Your task to perform on an android device: turn on airplane mode Image 0: 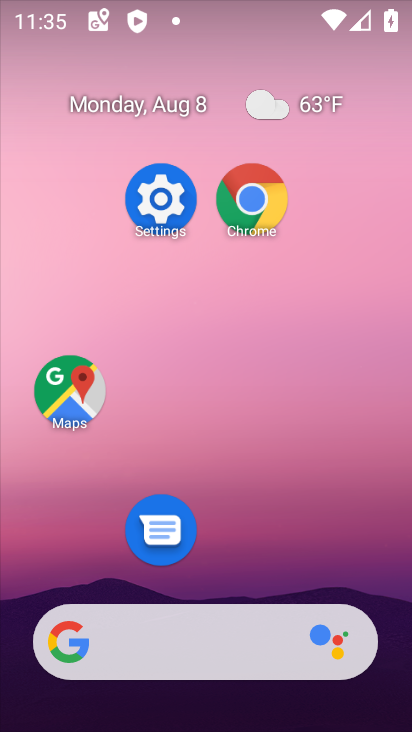
Step 0: drag from (228, 666) to (218, 246)
Your task to perform on an android device: turn on airplane mode Image 1: 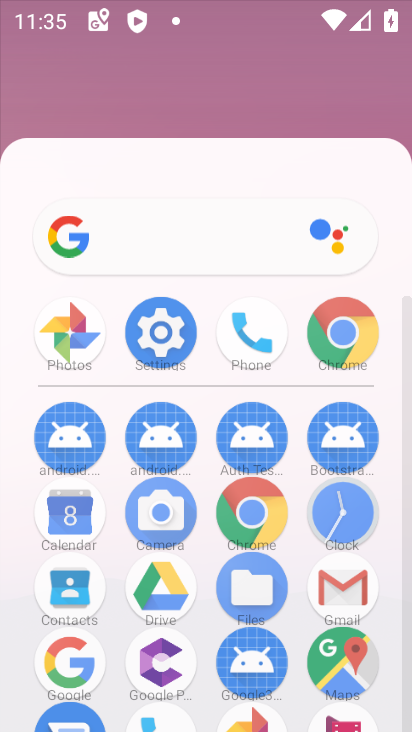
Step 1: drag from (211, 470) to (211, 169)
Your task to perform on an android device: turn on airplane mode Image 2: 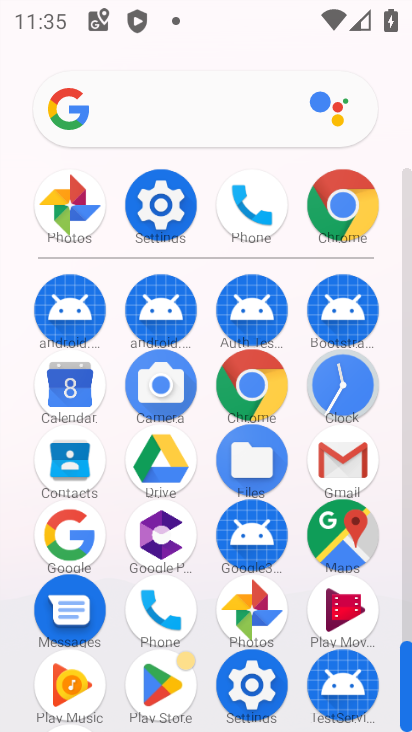
Step 2: click (159, 212)
Your task to perform on an android device: turn on airplane mode Image 3: 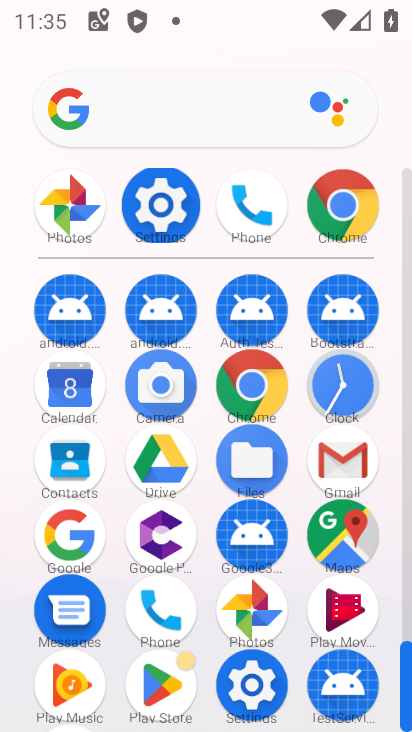
Step 3: click (157, 201)
Your task to perform on an android device: turn on airplane mode Image 4: 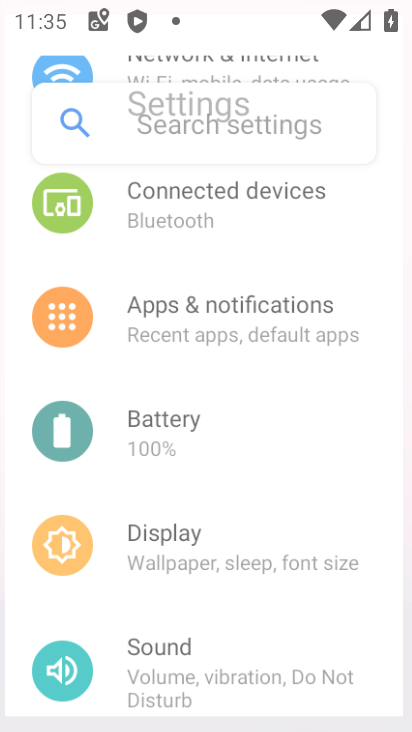
Step 4: click (159, 197)
Your task to perform on an android device: turn on airplane mode Image 5: 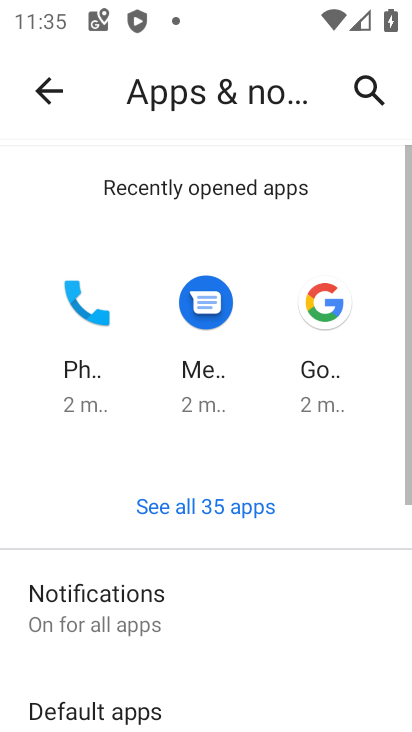
Step 5: click (36, 94)
Your task to perform on an android device: turn on airplane mode Image 6: 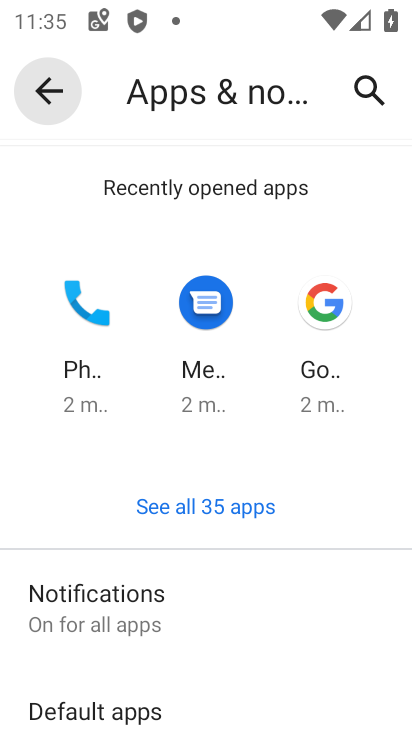
Step 6: click (36, 92)
Your task to perform on an android device: turn on airplane mode Image 7: 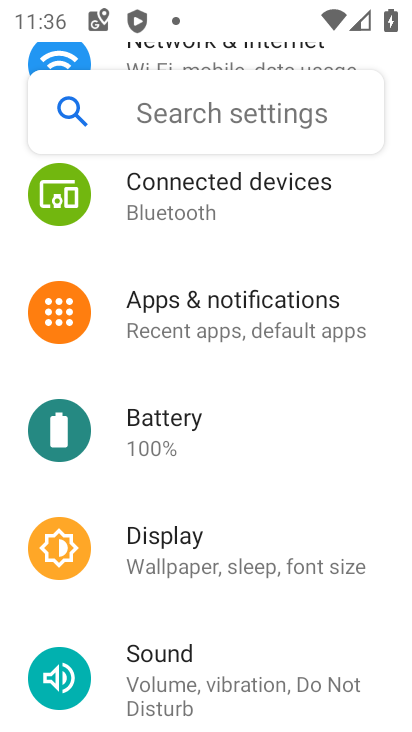
Step 7: drag from (175, 242) to (204, 436)
Your task to perform on an android device: turn on airplane mode Image 8: 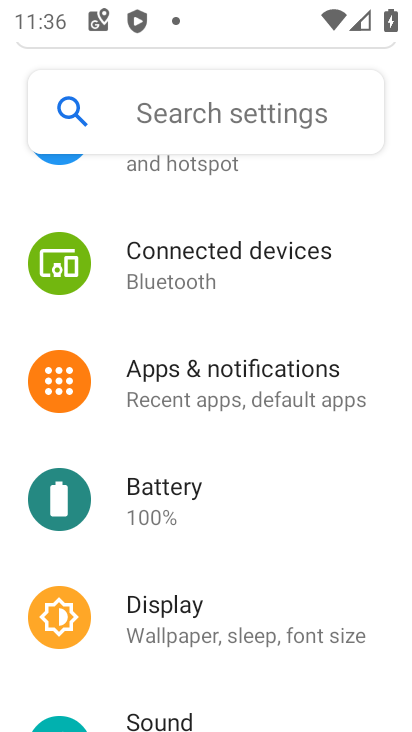
Step 8: click (198, 524)
Your task to perform on an android device: turn on airplane mode Image 9: 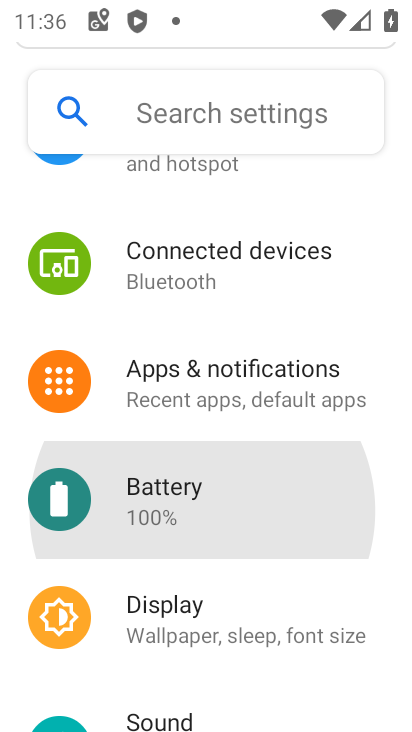
Step 9: click (195, 505)
Your task to perform on an android device: turn on airplane mode Image 10: 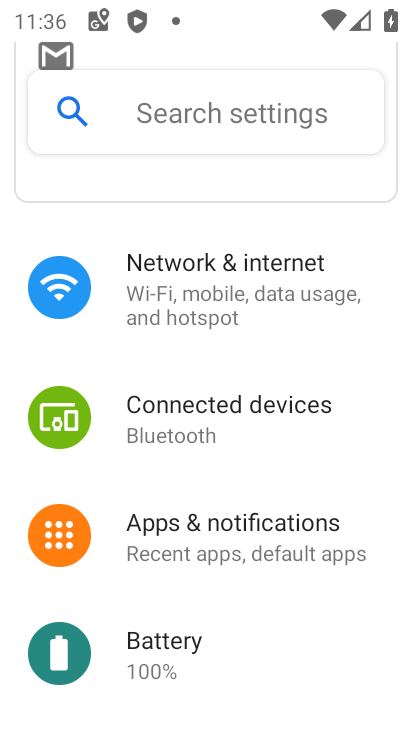
Step 10: drag from (133, 272) to (164, 504)
Your task to perform on an android device: turn on airplane mode Image 11: 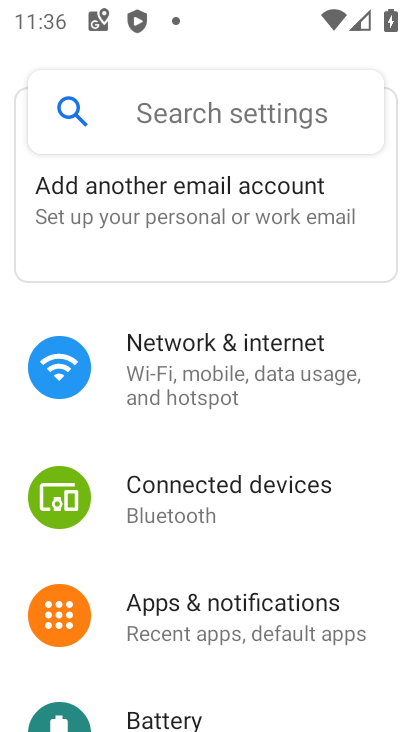
Step 11: click (174, 360)
Your task to perform on an android device: turn on airplane mode Image 12: 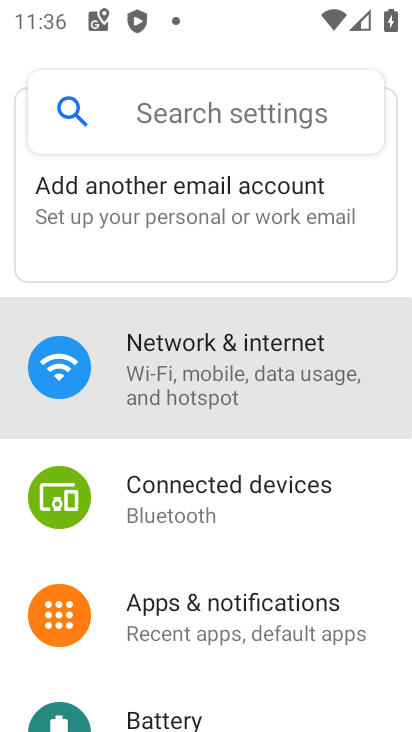
Step 12: click (173, 360)
Your task to perform on an android device: turn on airplane mode Image 13: 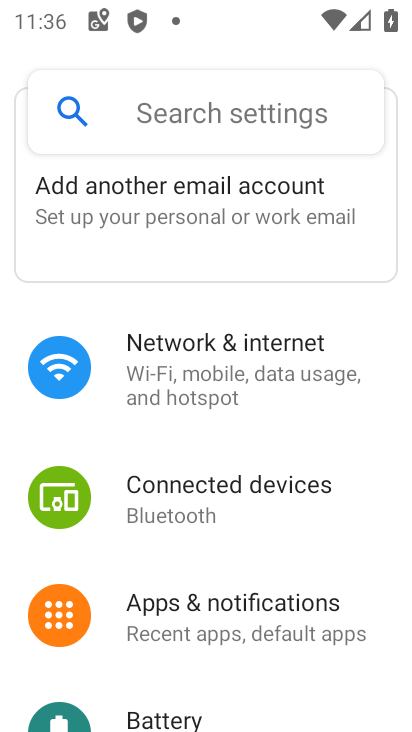
Step 13: click (175, 364)
Your task to perform on an android device: turn on airplane mode Image 14: 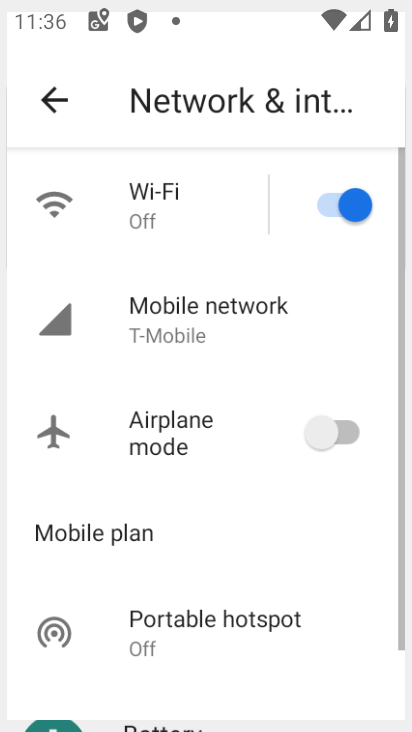
Step 14: click (175, 370)
Your task to perform on an android device: turn on airplane mode Image 15: 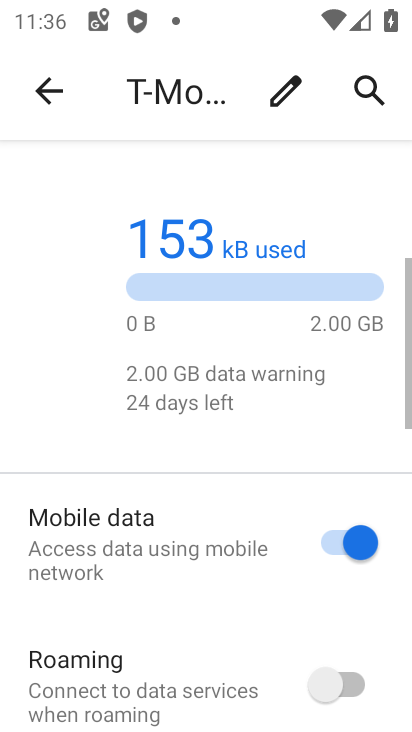
Step 15: click (324, 439)
Your task to perform on an android device: turn on airplane mode Image 16: 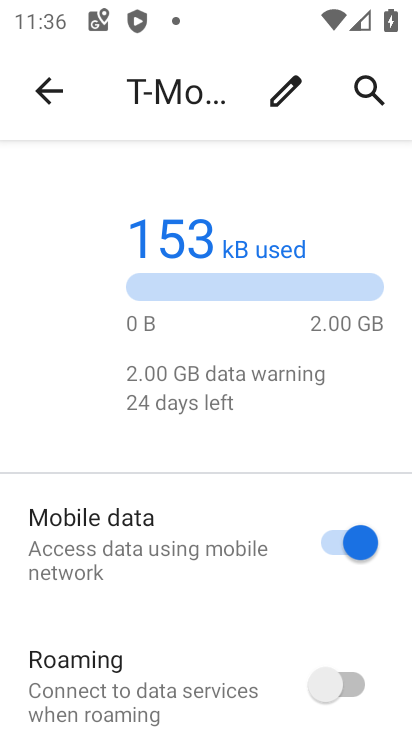
Step 16: click (31, 93)
Your task to perform on an android device: turn on airplane mode Image 17: 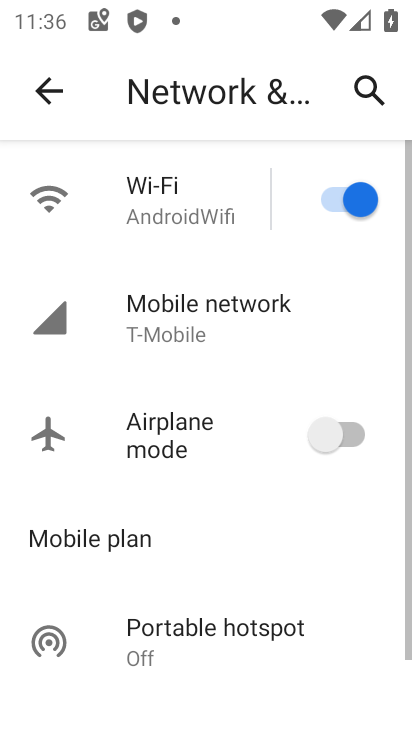
Step 17: click (323, 443)
Your task to perform on an android device: turn on airplane mode Image 18: 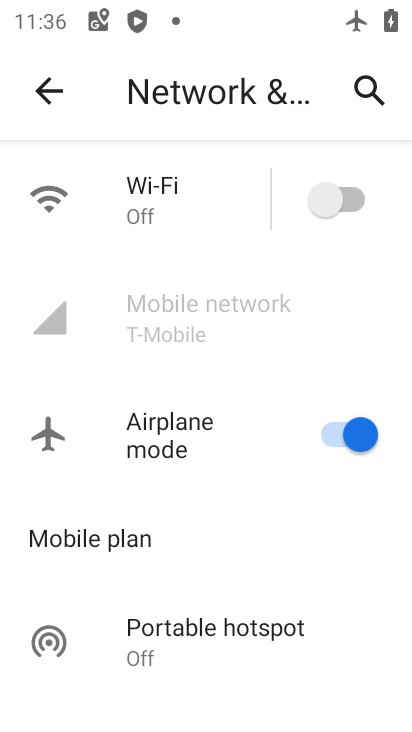
Step 18: task complete